Your task to perform on an android device: Open settings Image 0: 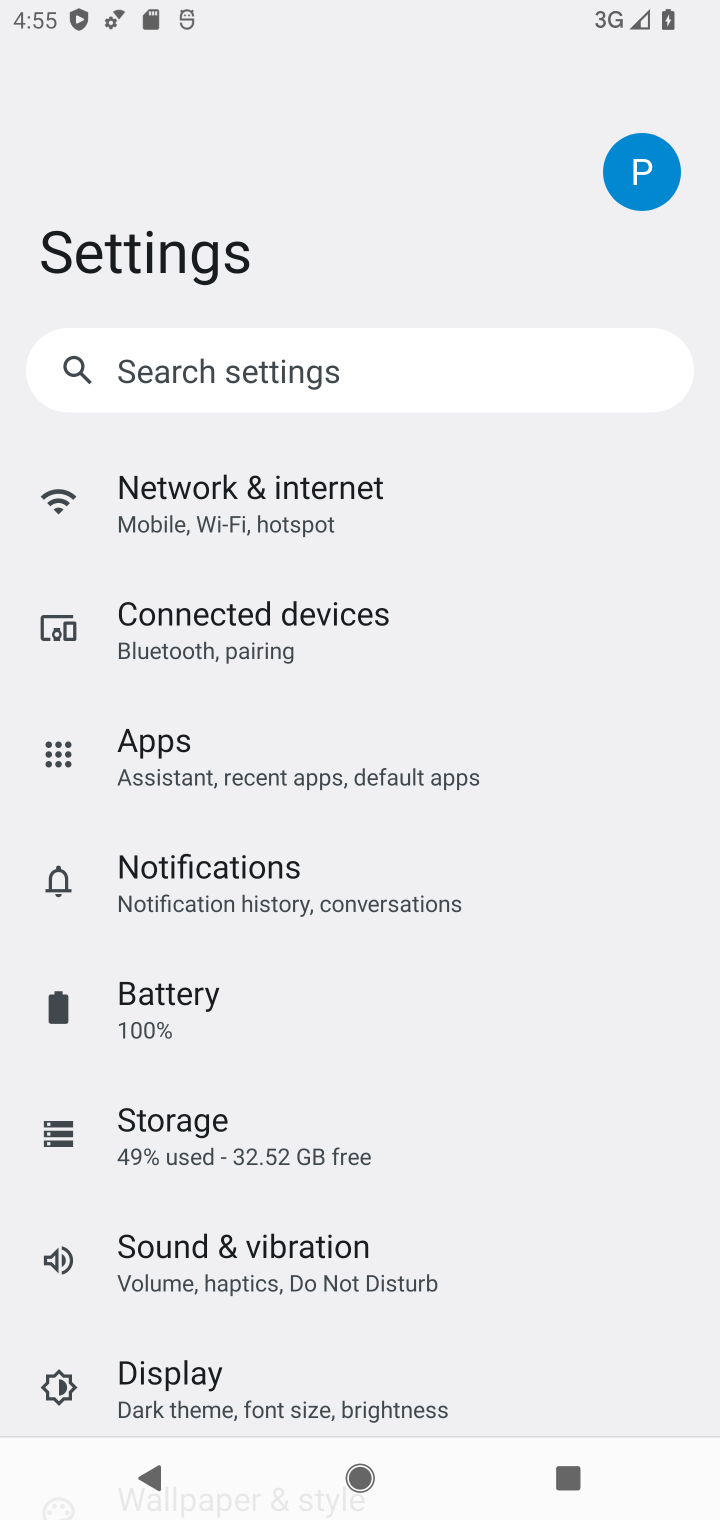
Step 0: task complete